Your task to perform on an android device: remove spam from my inbox in the gmail app Image 0: 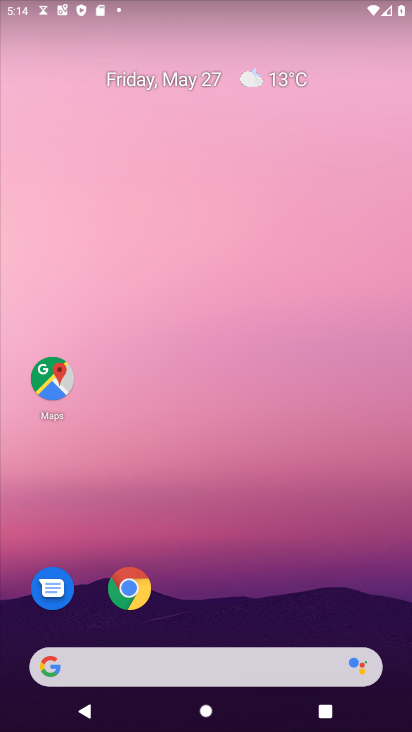
Step 0: drag from (254, 554) to (301, 57)
Your task to perform on an android device: remove spam from my inbox in the gmail app Image 1: 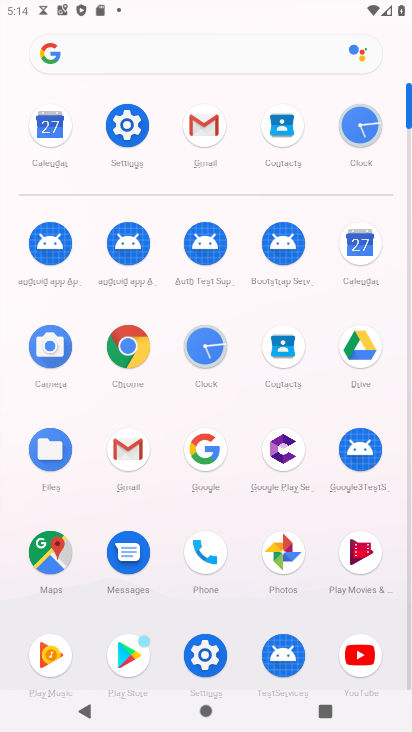
Step 1: click (213, 111)
Your task to perform on an android device: remove spam from my inbox in the gmail app Image 2: 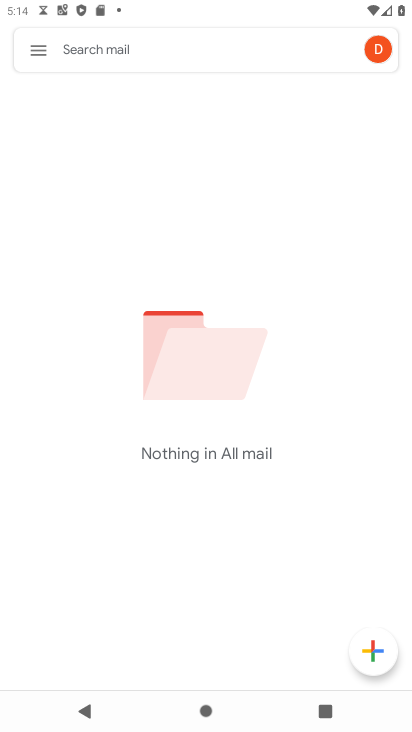
Step 2: click (32, 47)
Your task to perform on an android device: remove spam from my inbox in the gmail app Image 3: 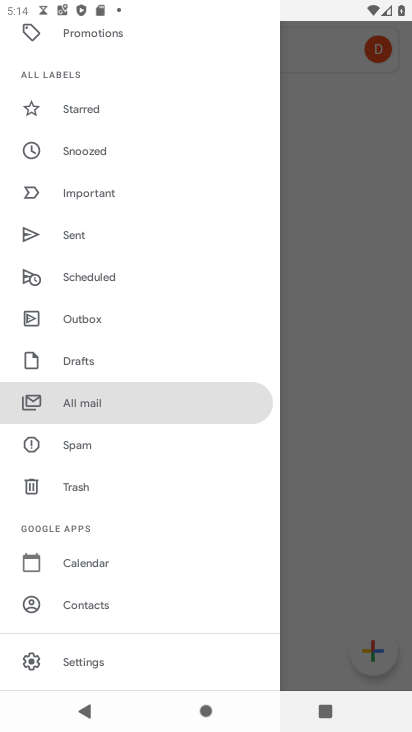
Step 3: click (112, 448)
Your task to perform on an android device: remove spam from my inbox in the gmail app Image 4: 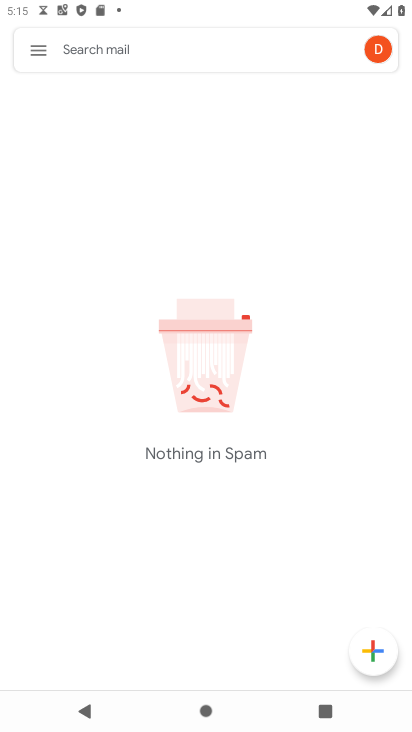
Step 4: task complete